Your task to perform on an android device: Clear all items from cart on newegg.com. Image 0: 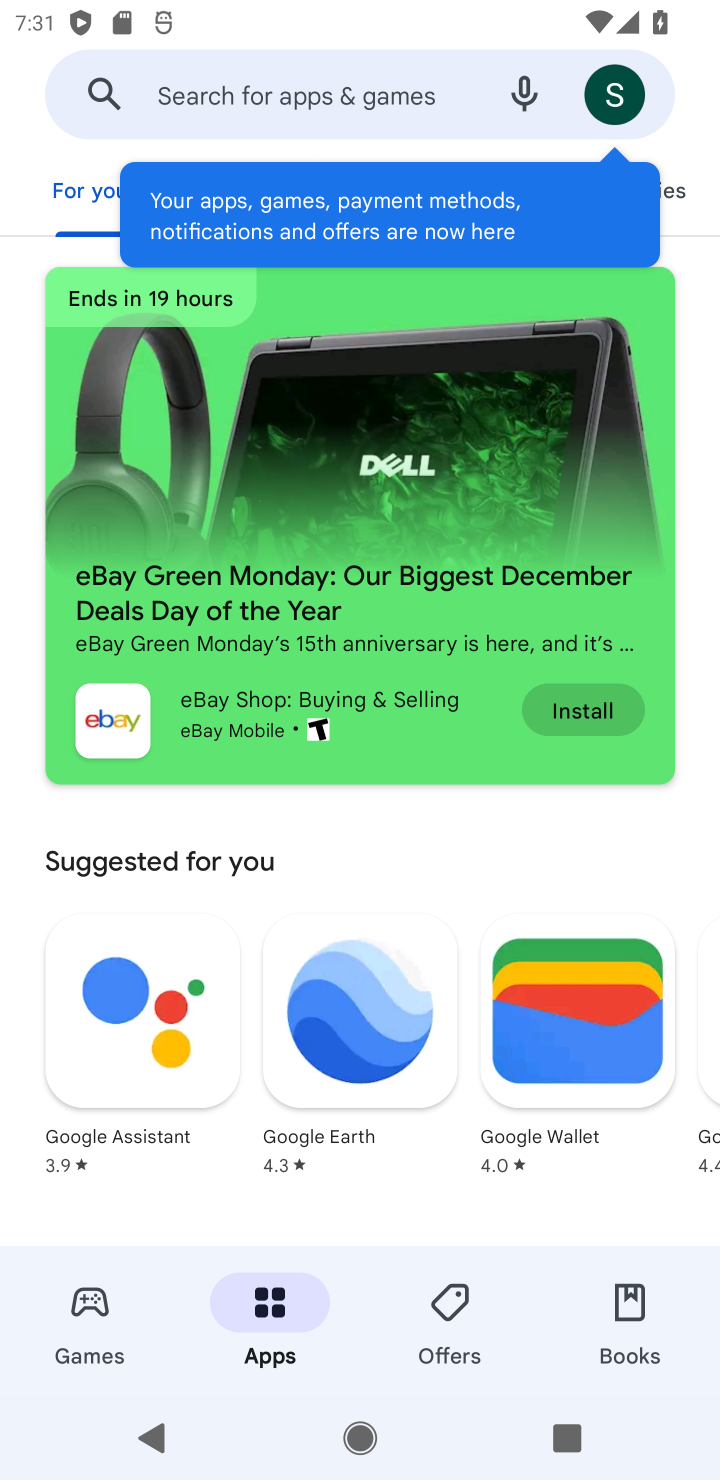
Step 0: press home button
Your task to perform on an android device: Clear all items from cart on newegg.com. Image 1: 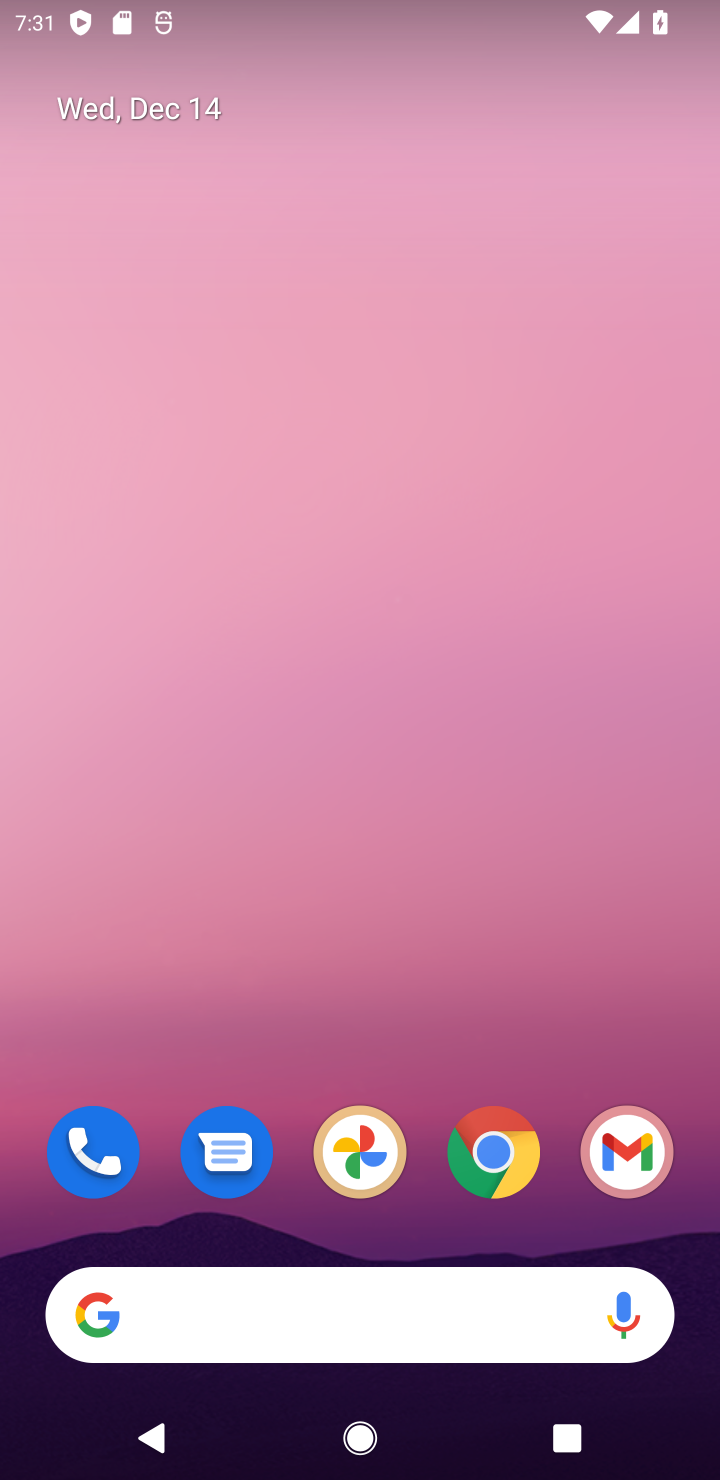
Step 1: click (490, 1175)
Your task to perform on an android device: Clear all items from cart on newegg.com. Image 2: 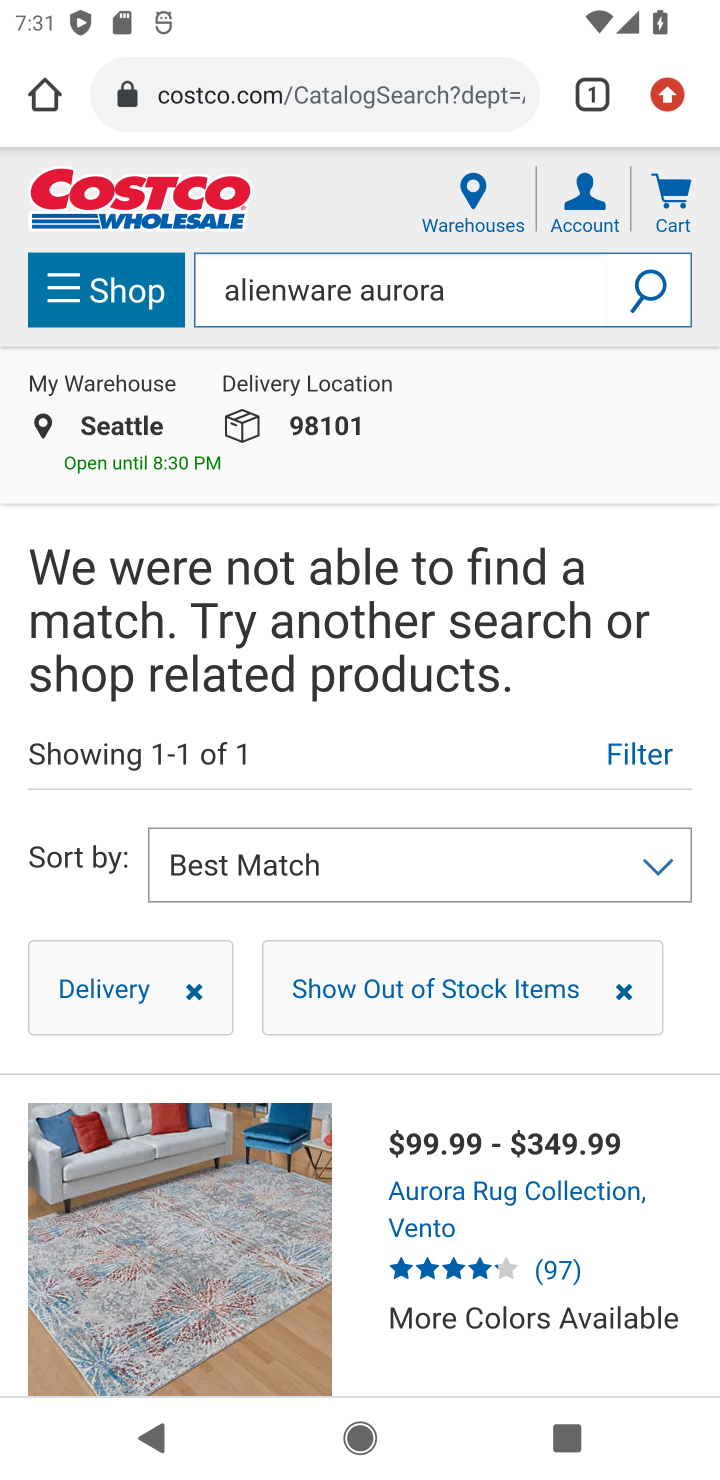
Step 2: click (256, 108)
Your task to perform on an android device: Clear all items from cart on newegg.com. Image 3: 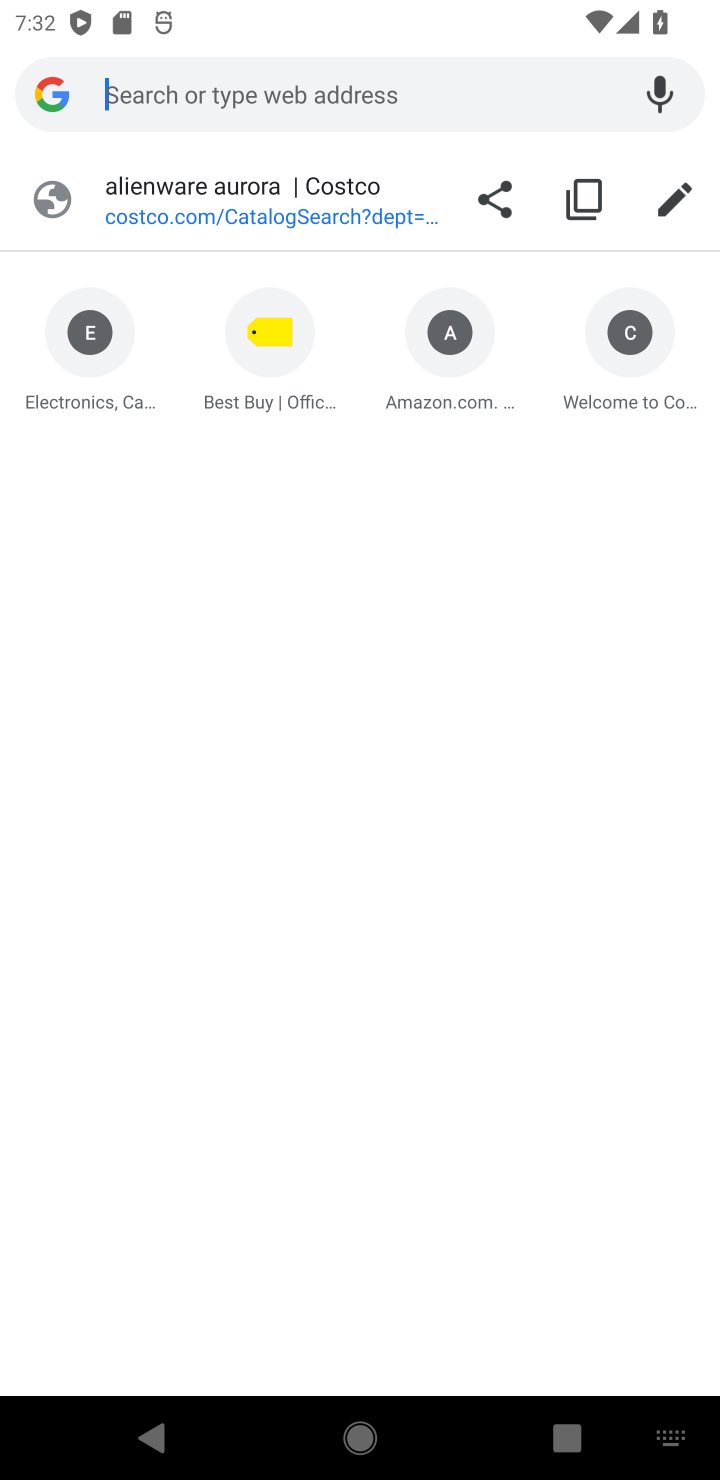
Step 3: type "newegg.com"
Your task to perform on an android device: Clear all items from cart on newegg.com. Image 4: 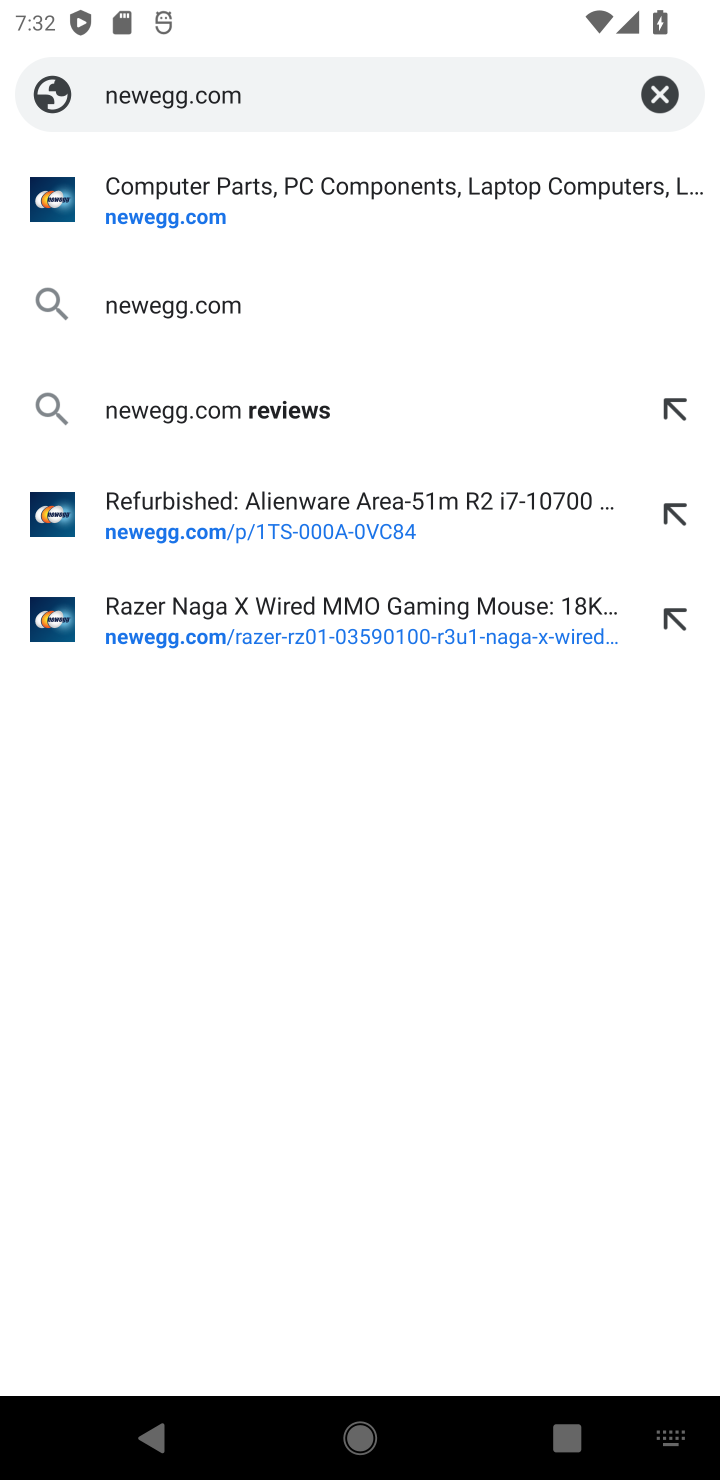
Step 4: click (151, 197)
Your task to perform on an android device: Clear all items from cart on newegg.com. Image 5: 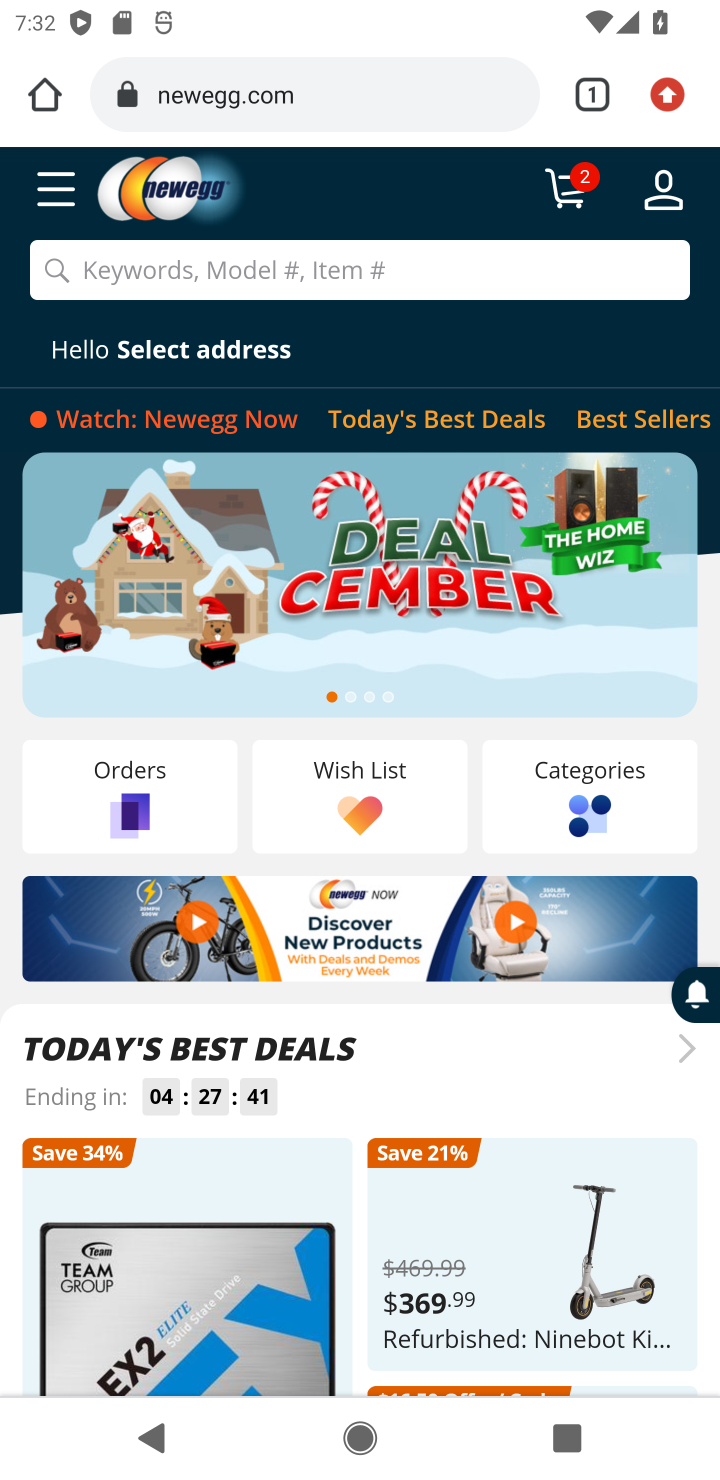
Step 5: click (575, 205)
Your task to perform on an android device: Clear all items from cart on newegg.com. Image 6: 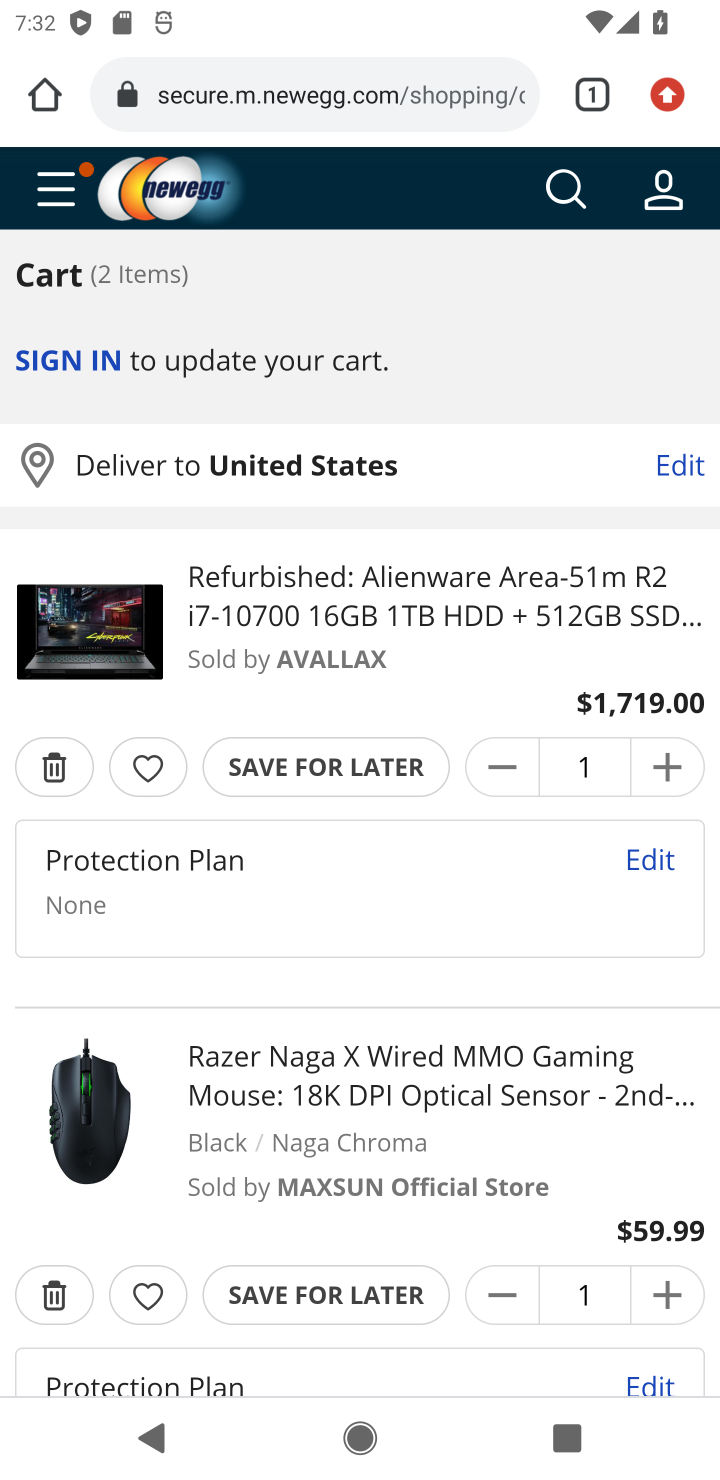
Step 6: click (56, 761)
Your task to perform on an android device: Clear all items from cart on newegg.com. Image 7: 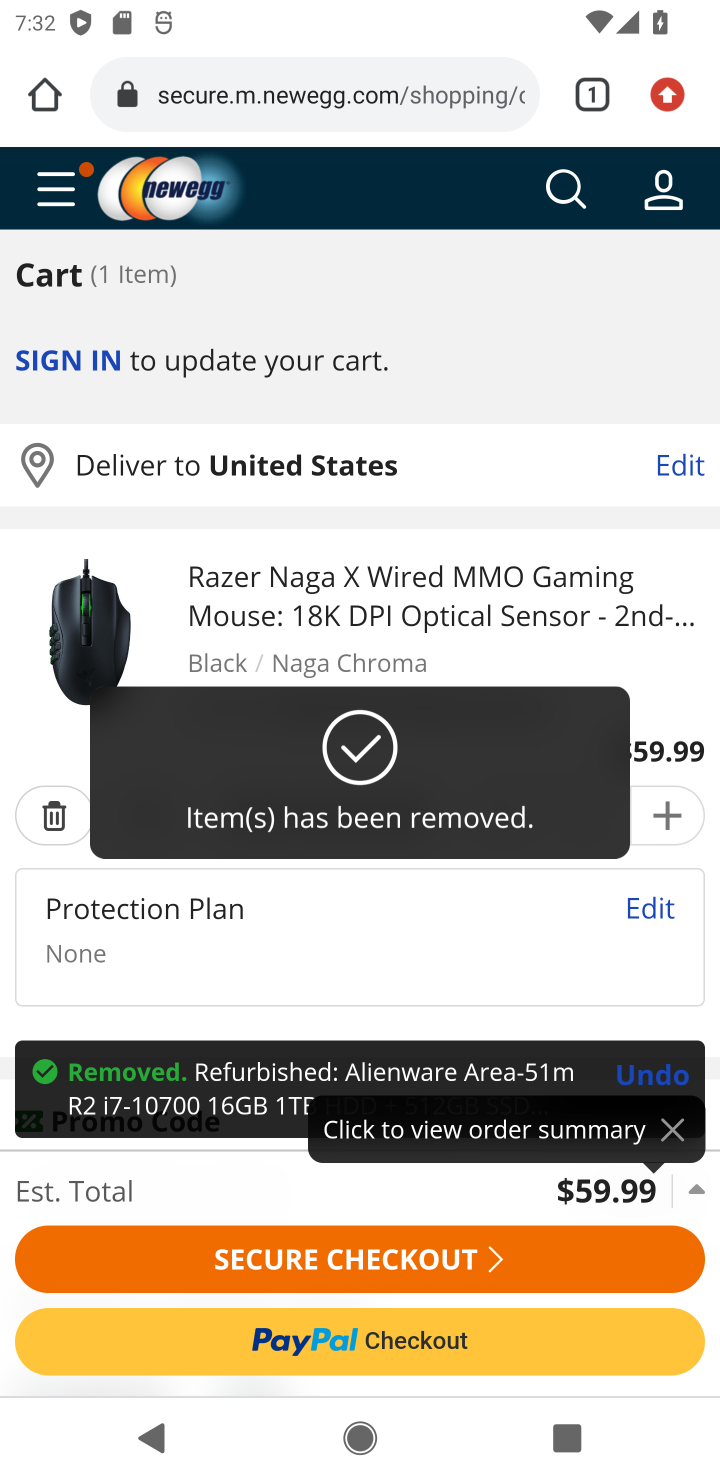
Step 7: click (41, 810)
Your task to perform on an android device: Clear all items from cart on newegg.com. Image 8: 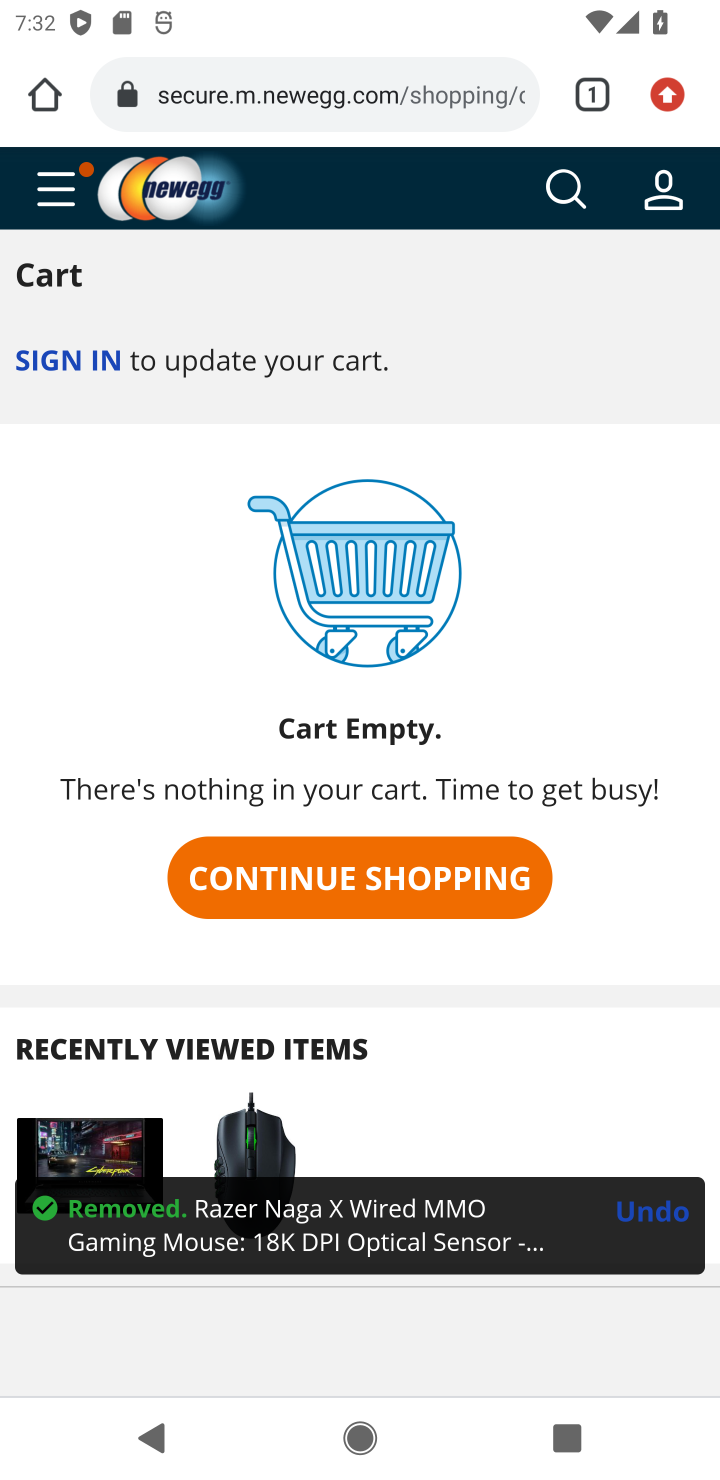
Step 8: task complete